Your task to perform on an android device: Go to eBay Image 0: 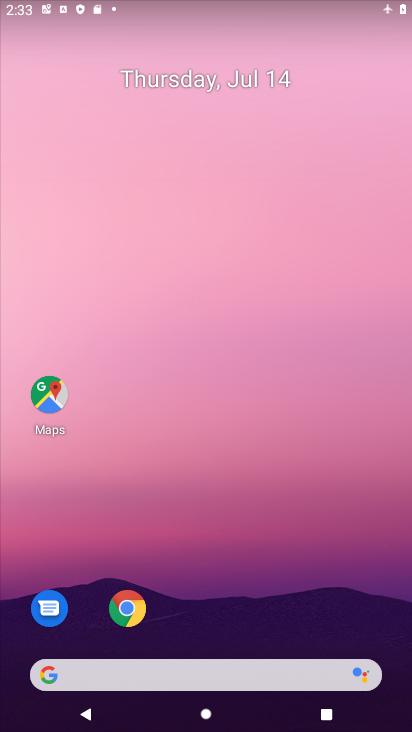
Step 0: click (130, 609)
Your task to perform on an android device: Go to eBay Image 1: 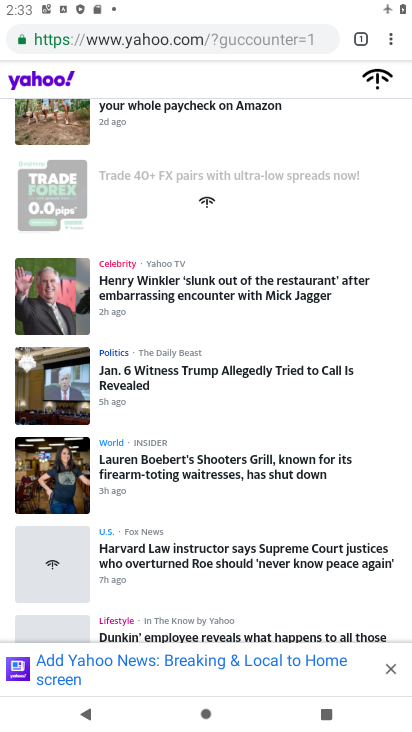
Step 1: click (255, 33)
Your task to perform on an android device: Go to eBay Image 2: 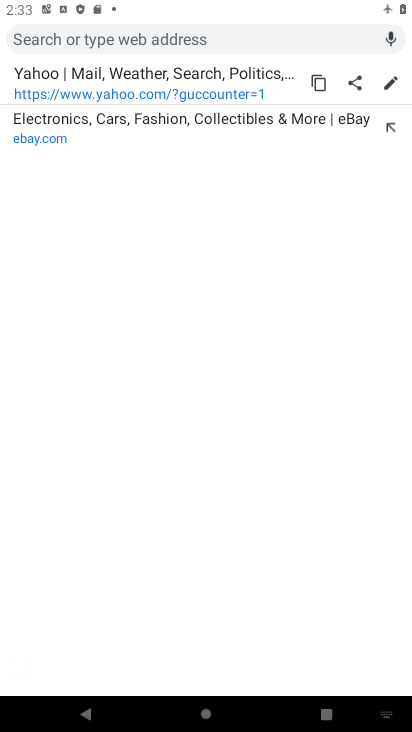
Step 2: type "eBay"
Your task to perform on an android device: Go to eBay Image 3: 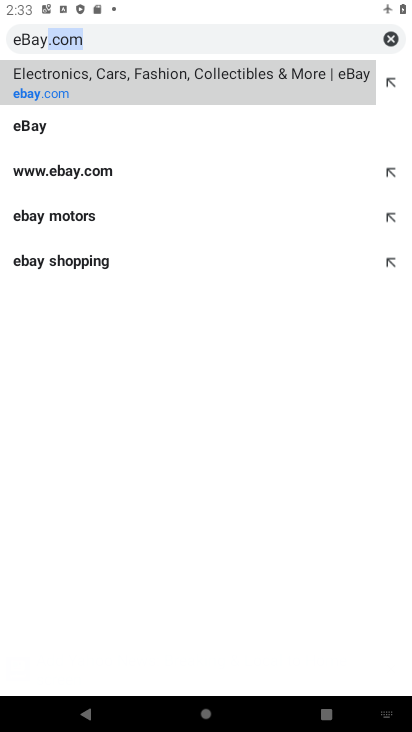
Step 3: click (47, 89)
Your task to perform on an android device: Go to eBay Image 4: 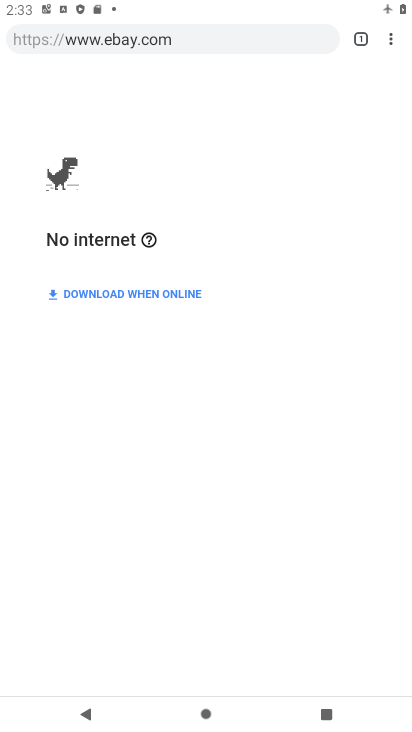
Step 4: task complete